Your task to perform on an android device: Search for "sony triple a" on walmart.com, select the first entry, and add it to the cart. Image 0: 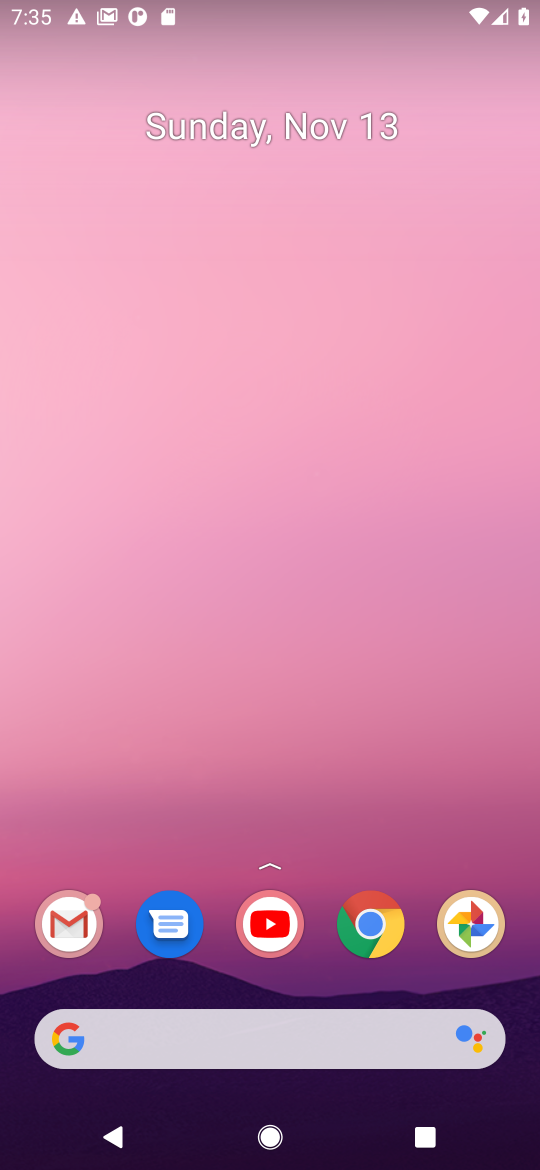
Step 0: click (379, 918)
Your task to perform on an android device: Search for "sony triple a" on walmart.com, select the first entry, and add it to the cart. Image 1: 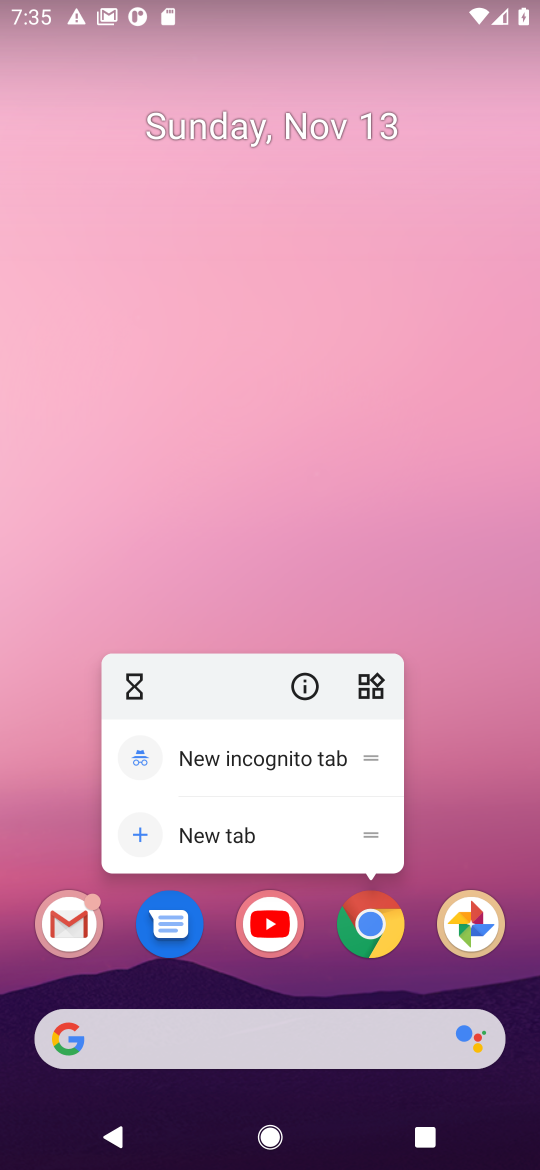
Step 1: click (374, 939)
Your task to perform on an android device: Search for "sony triple a" on walmart.com, select the first entry, and add it to the cart. Image 2: 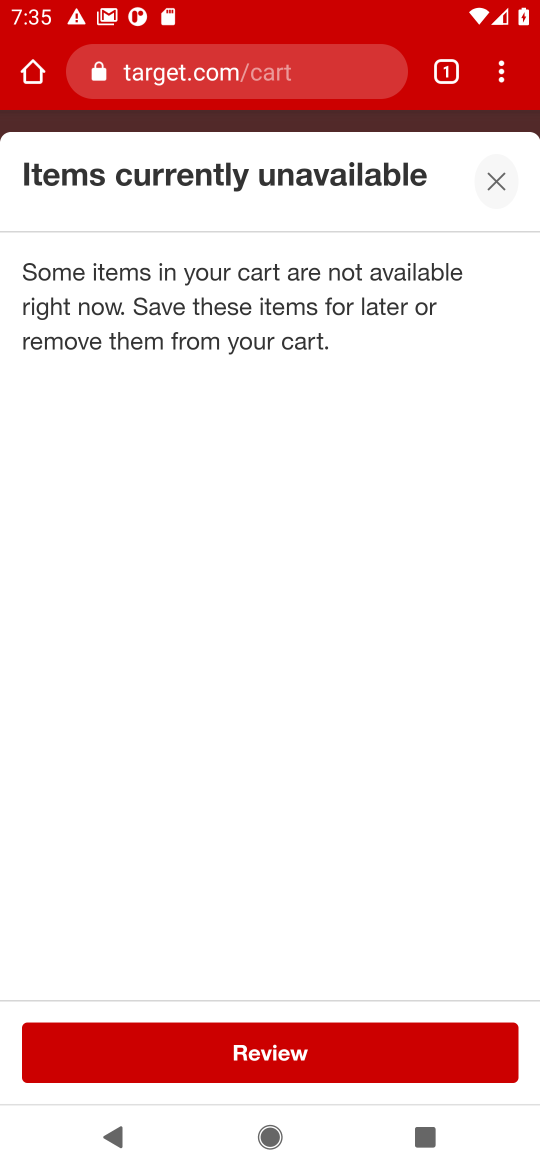
Step 2: click (159, 89)
Your task to perform on an android device: Search for "sony triple a" on walmart.com, select the first entry, and add it to the cart. Image 3: 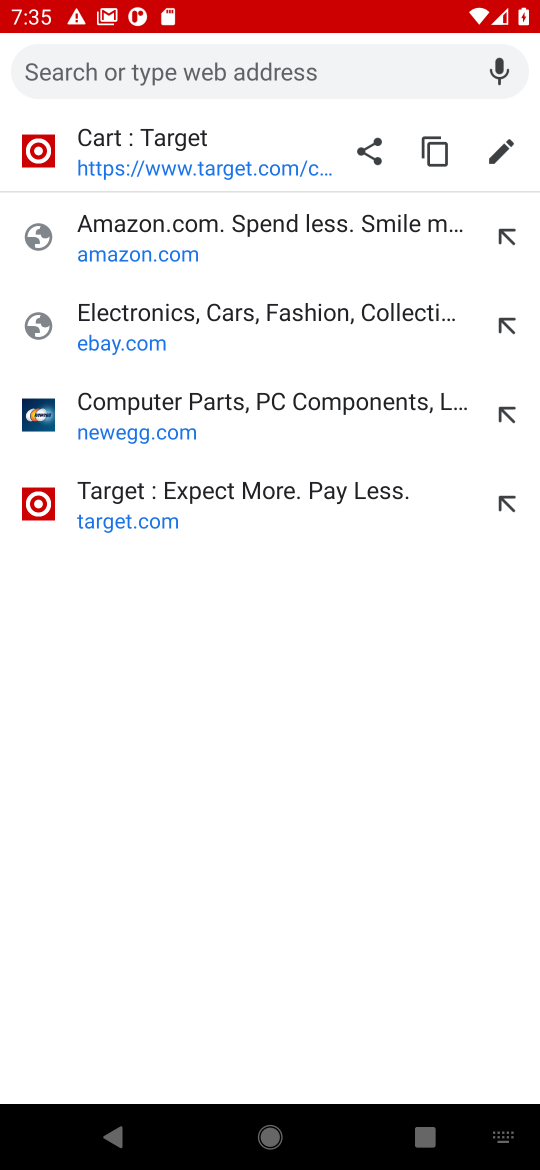
Step 3: type "walmart.com"
Your task to perform on an android device: Search for "sony triple a" on walmart.com, select the first entry, and add it to the cart. Image 4: 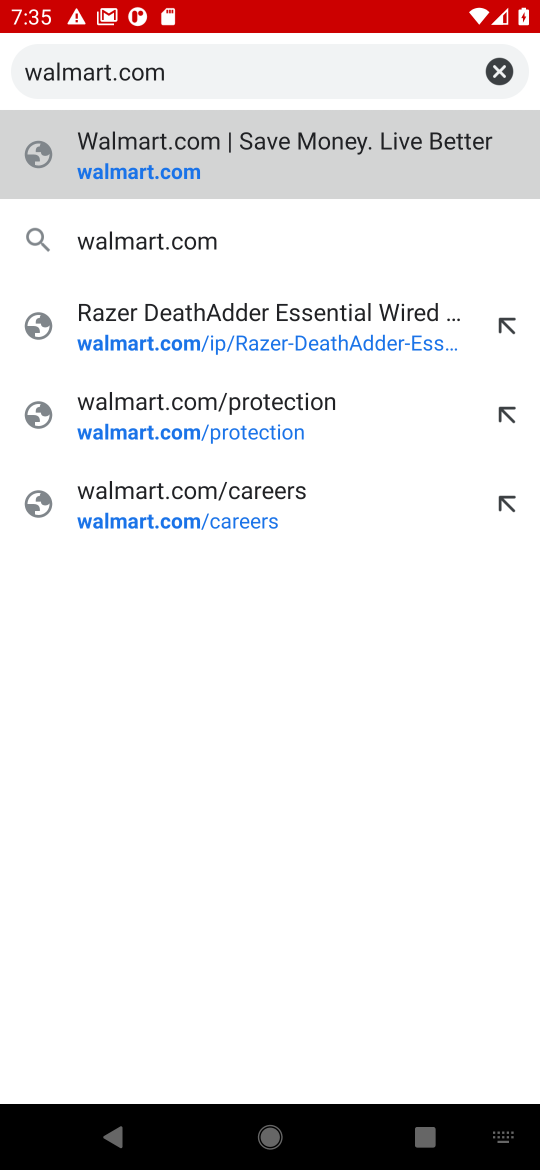
Step 4: click (142, 177)
Your task to perform on an android device: Search for "sony triple a" on walmart.com, select the first entry, and add it to the cart. Image 5: 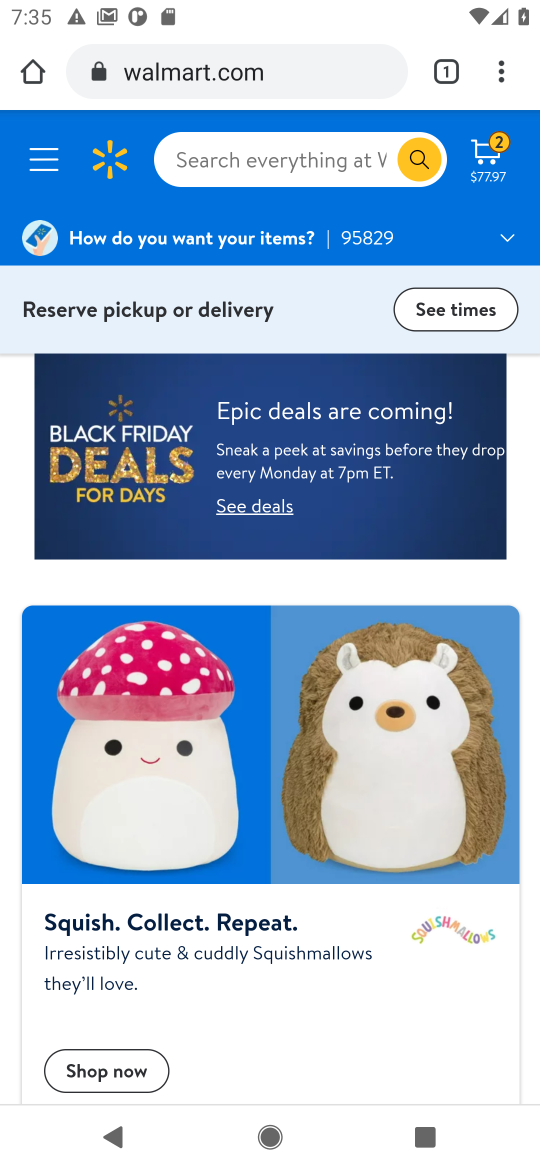
Step 5: click (241, 165)
Your task to perform on an android device: Search for "sony triple a" on walmart.com, select the first entry, and add it to the cart. Image 6: 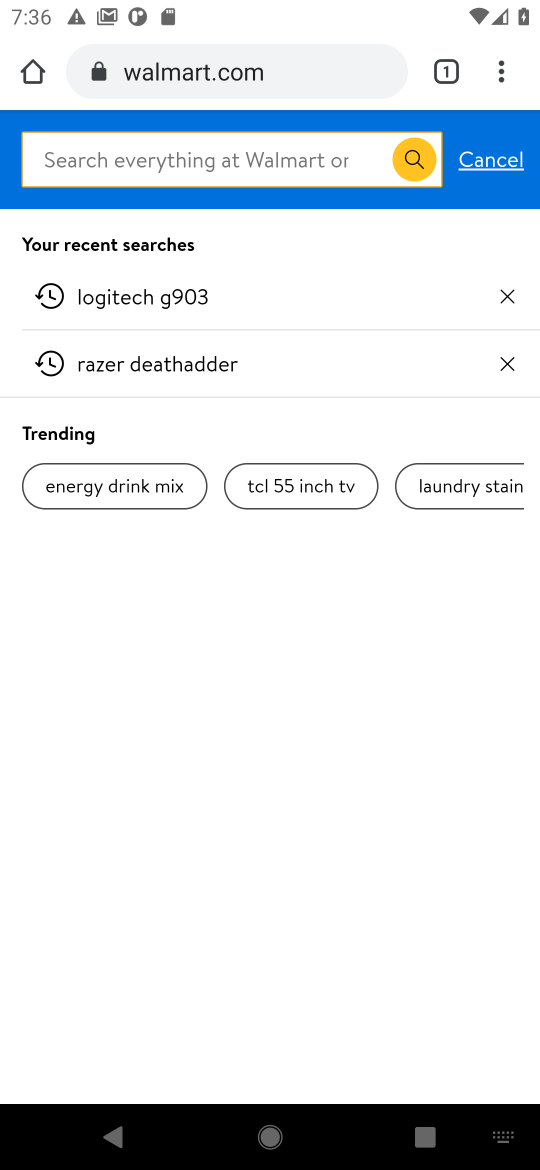
Step 6: type "sony triple a"
Your task to perform on an android device: Search for "sony triple a" on walmart.com, select the first entry, and add it to the cart. Image 7: 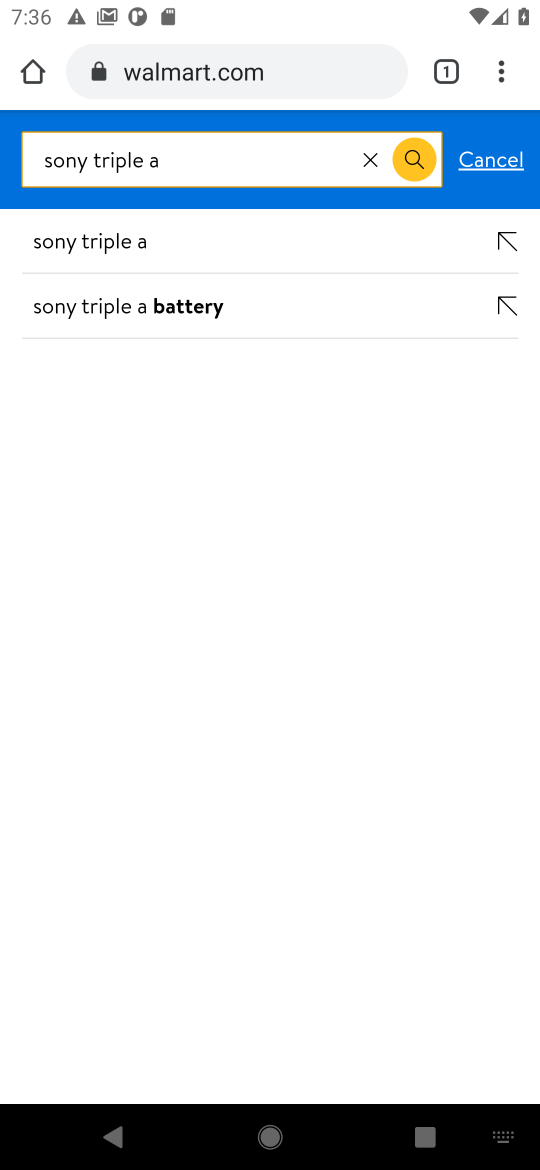
Step 7: click (87, 247)
Your task to perform on an android device: Search for "sony triple a" on walmart.com, select the first entry, and add it to the cart. Image 8: 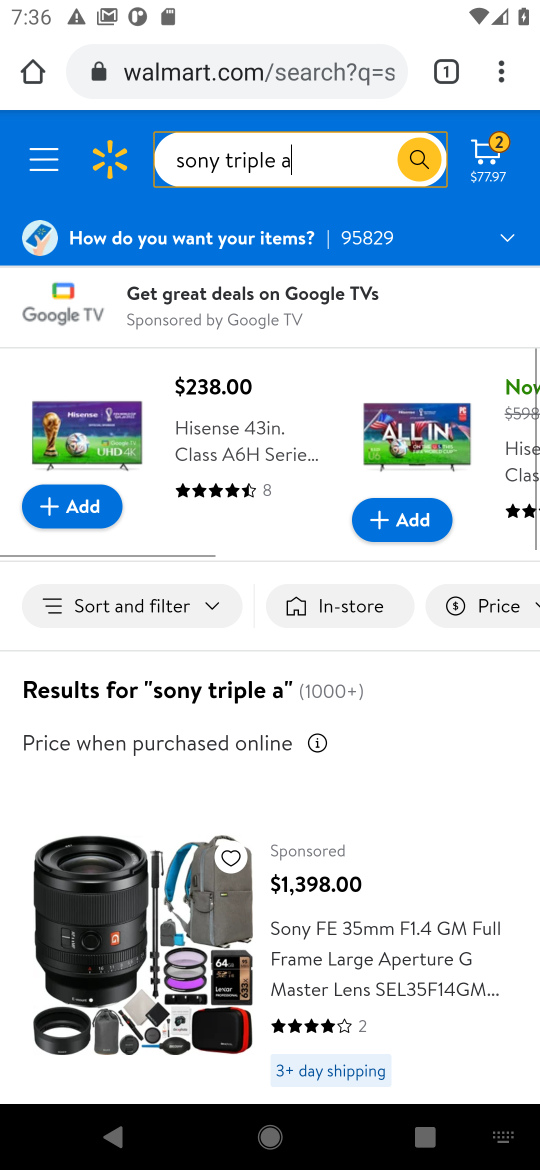
Step 8: task complete